Your task to perform on an android device: open chrome privacy settings Image 0: 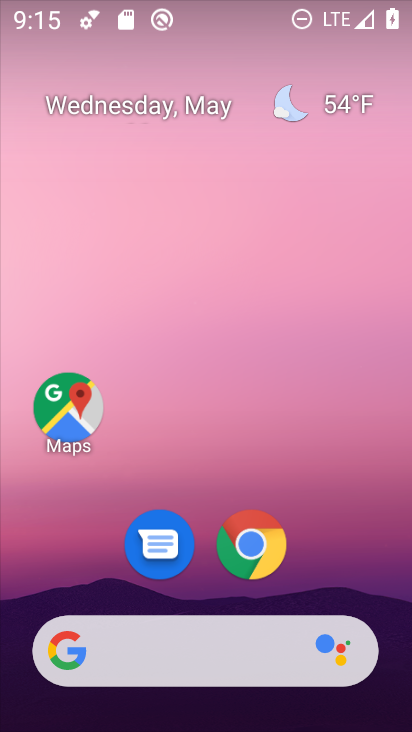
Step 0: click (241, 541)
Your task to perform on an android device: open chrome privacy settings Image 1: 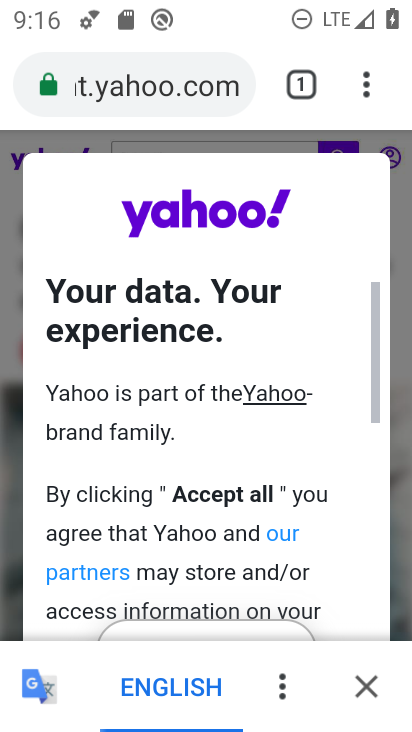
Step 1: click (355, 75)
Your task to perform on an android device: open chrome privacy settings Image 2: 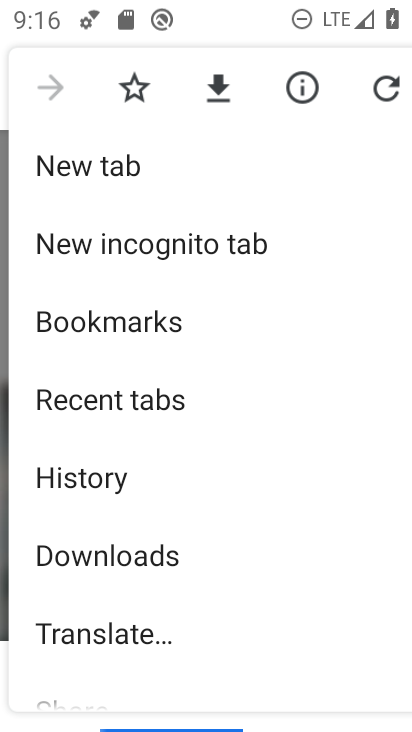
Step 2: drag from (176, 645) to (216, 193)
Your task to perform on an android device: open chrome privacy settings Image 3: 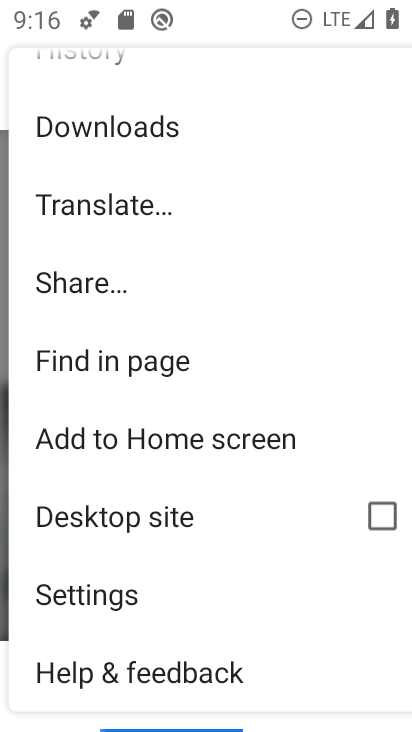
Step 3: drag from (176, 170) to (258, 473)
Your task to perform on an android device: open chrome privacy settings Image 4: 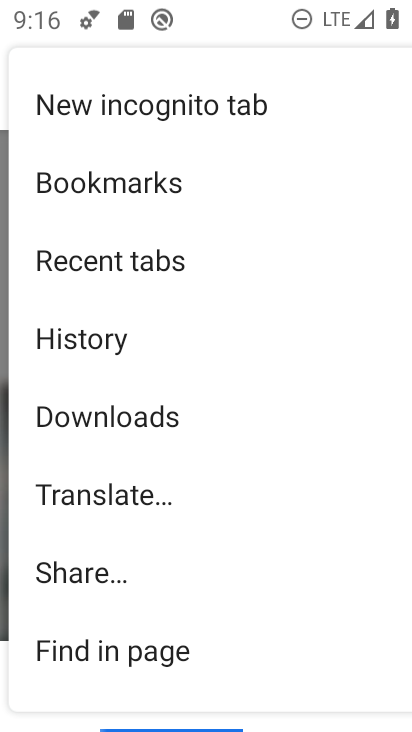
Step 4: drag from (242, 224) to (311, 627)
Your task to perform on an android device: open chrome privacy settings Image 5: 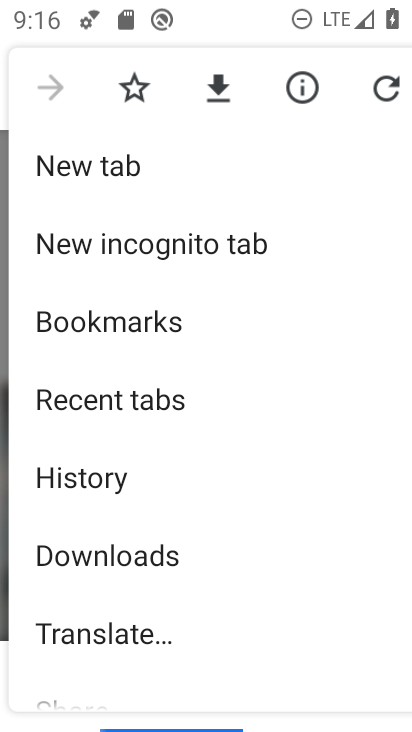
Step 5: drag from (144, 215) to (266, 636)
Your task to perform on an android device: open chrome privacy settings Image 6: 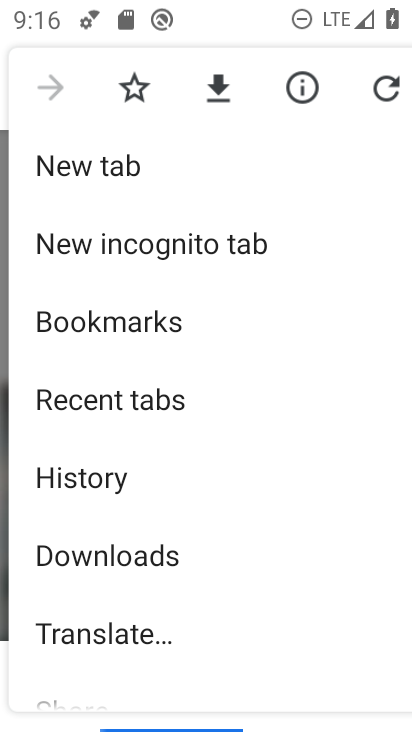
Step 6: drag from (225, 331) to (194, 726)
Your task to perform on an android device: open chrome privacy settings Image 7: 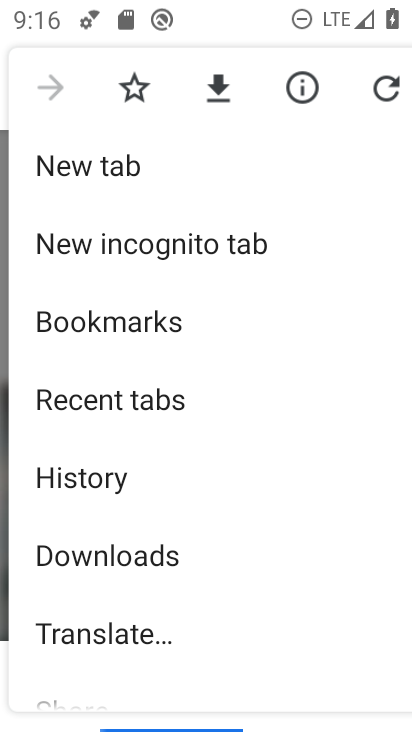
Step 7: drag from (147, 519) to (168, 120)
Your task to perform on an android device: open chrome privacy settings Image 8: 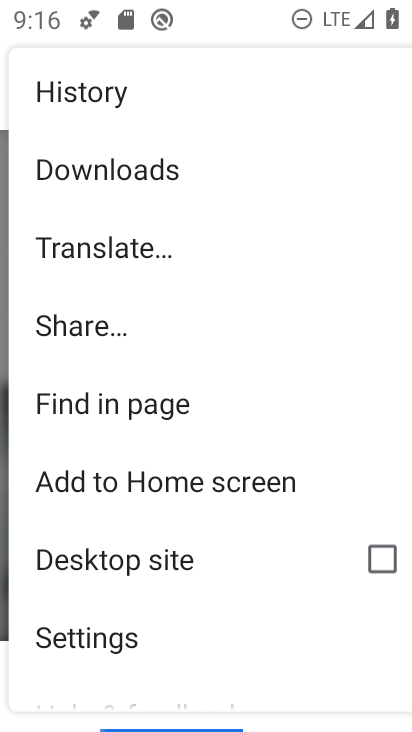
Step 8: drag from (265, 215) to (282, 591)
Your task to perform on an android device: open chrome privacy settings Image 9: 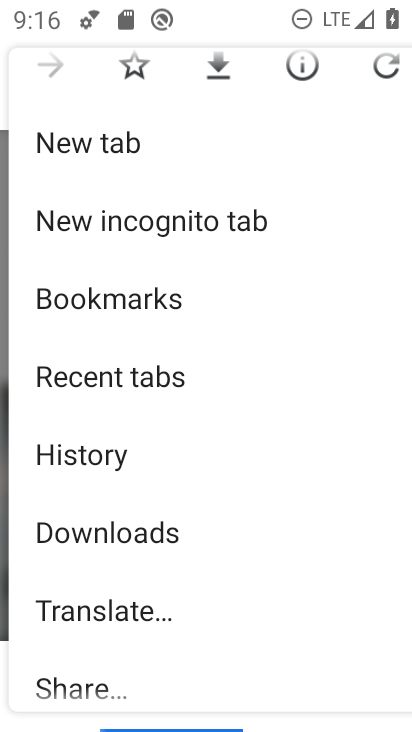
Step 9: drag from (179, 107) to (194, 597)
Your task to perform on an android device: open chrome privacy settings Image 10: 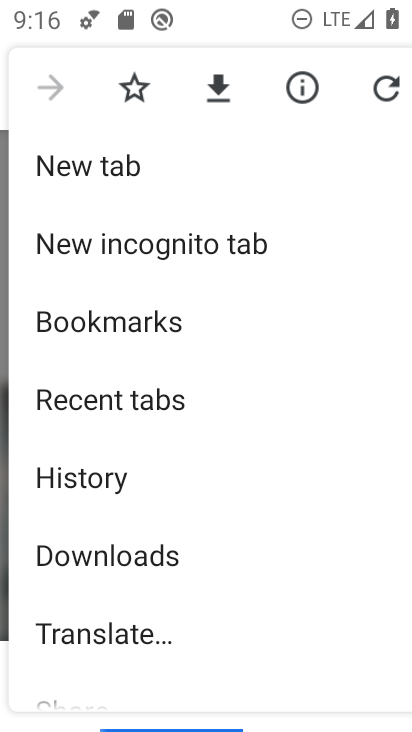
Step 10: drag from (176, 595) to (228, 187)
Your task to perform on an android device: open chrome privacy settings Image 11: 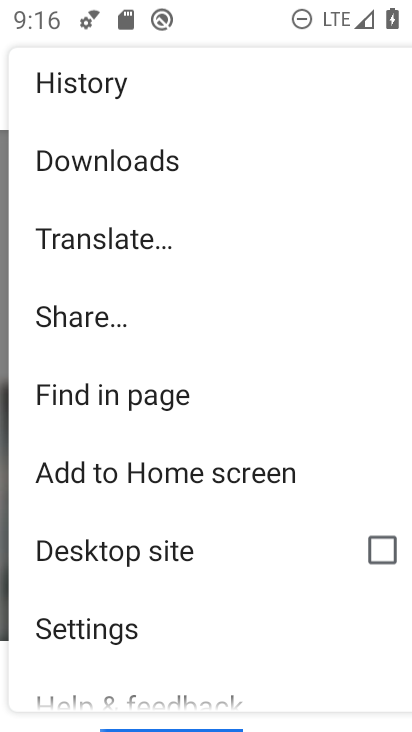
Step 11: drag from (181, 662) to (216, 270)
Your task to perform on an android device: open chrome privacy settings Image 12: 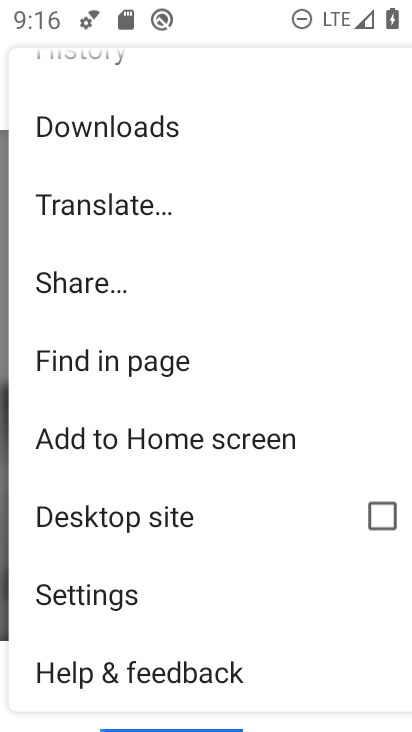
Step 12: drag from (115, 688) to (183, 302)
Your task to perform on an android device: open chrome privacy settings Image 13: 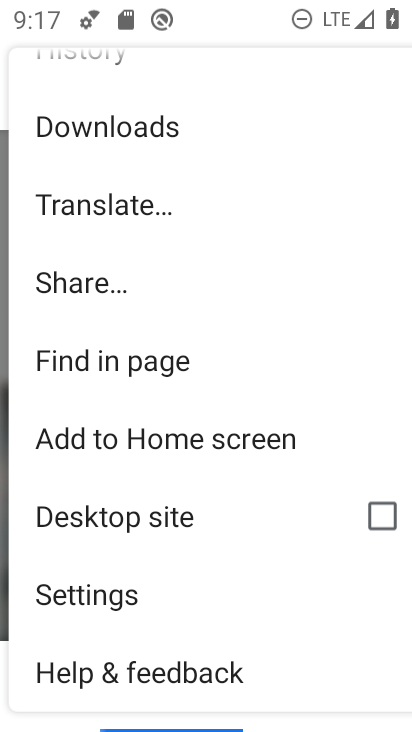
Step 13: drag from (159, 596) to (237, 48)
Your task to perform on an android device: open chrome privacy settings Image 14: 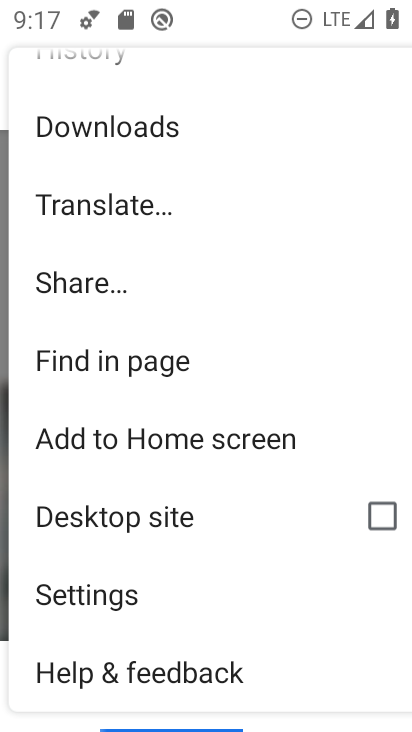
Step 14: click (167, 614)
Your task to perform on an android device: open chrome privacy settings Image 15: 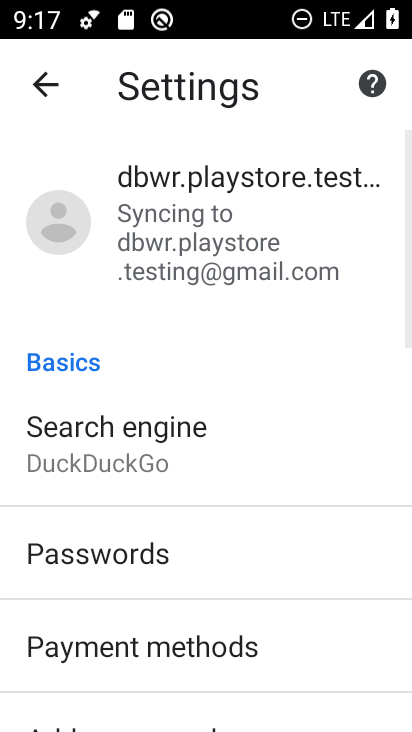
Step 15: drag from (121, 640) to (198, 118)
Your task to perform on an android device: open chrome privacy settings Image 16: 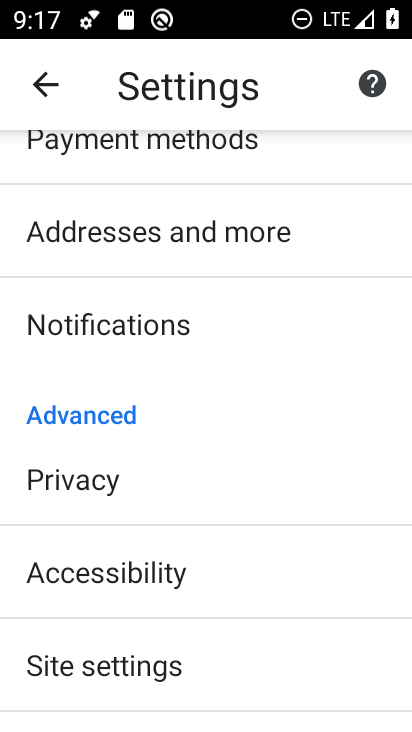
Step 16: click (125, 486)
Your task to perform on an android device: open chrome privacy settings Image 17: 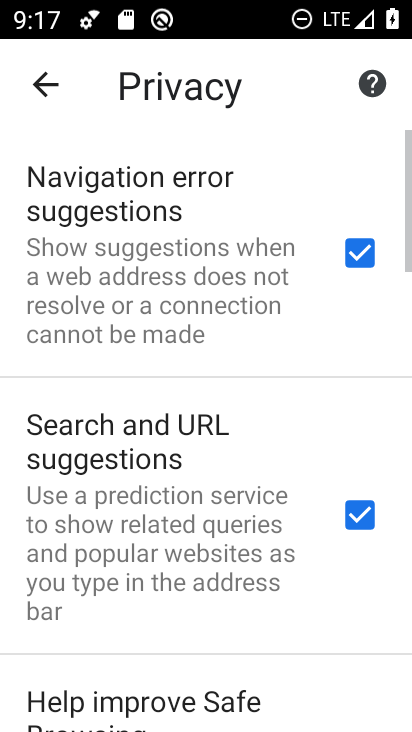
Step 17: task complete